Your task to perform on an android device: Go to battery settings Image 0: 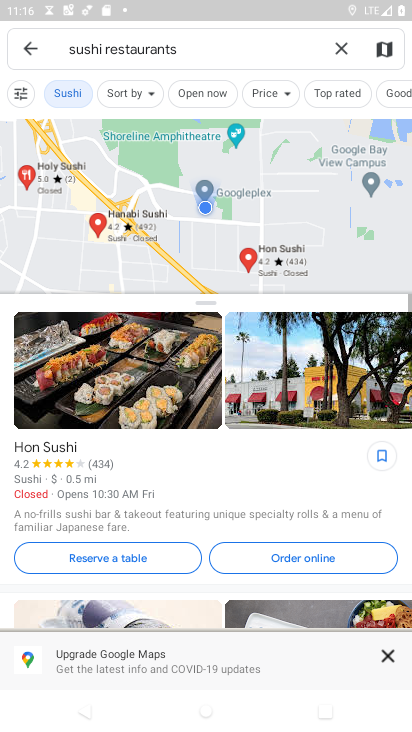
Step 0: press home button
Your task to perform on an android device: Go to battery settings Image 1: 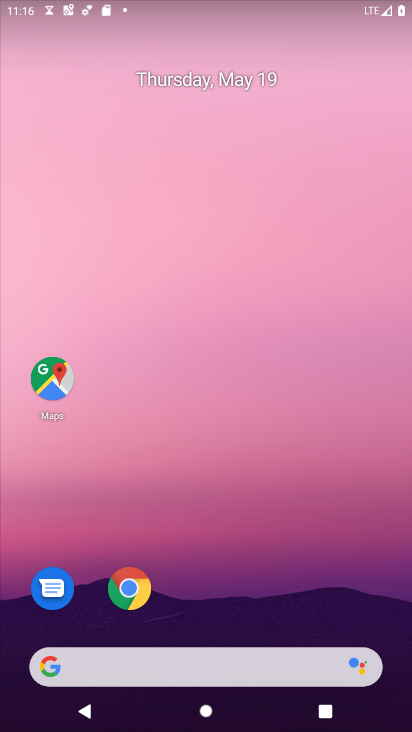
Step 1: drag from (261, 495) to (205, 30)
Your task to perform on an android device: Go to battery settings Image 2: 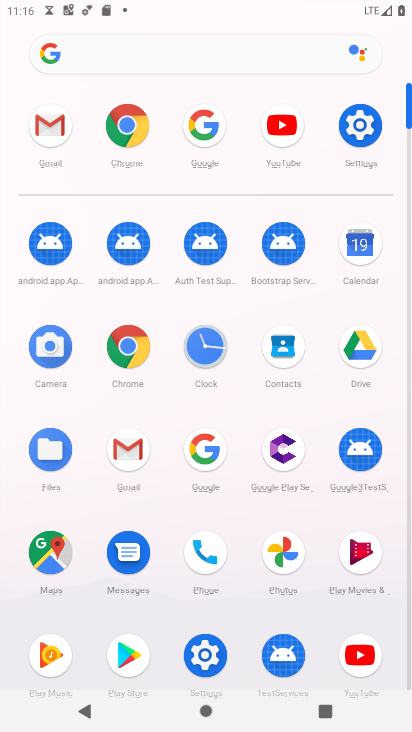
Step 2: click (369, 124)
Your task to perform on an android device: Go to battery settings Image 3: 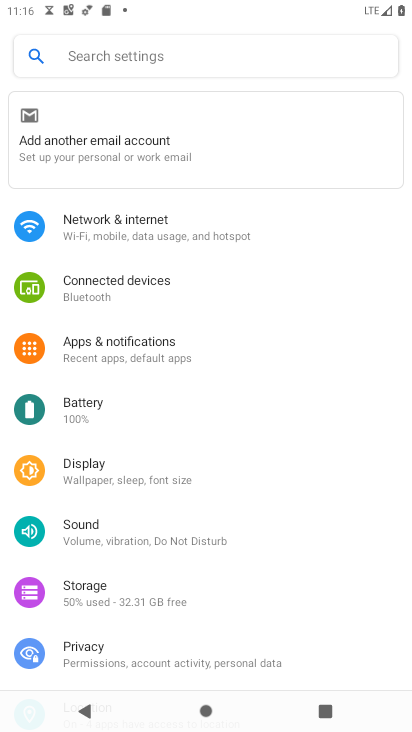
Step 3: click (174, 414)
Your task to perform on an android device: Go to battery settings Image 4: 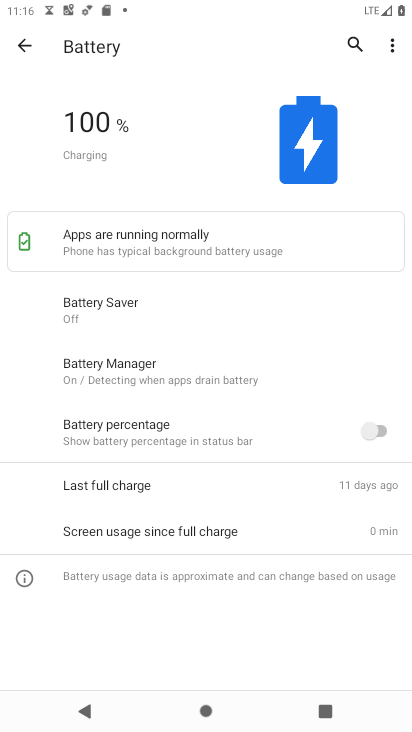
Step 4: task complete